Your task to perform on an android device: What is the news today? Image 0: 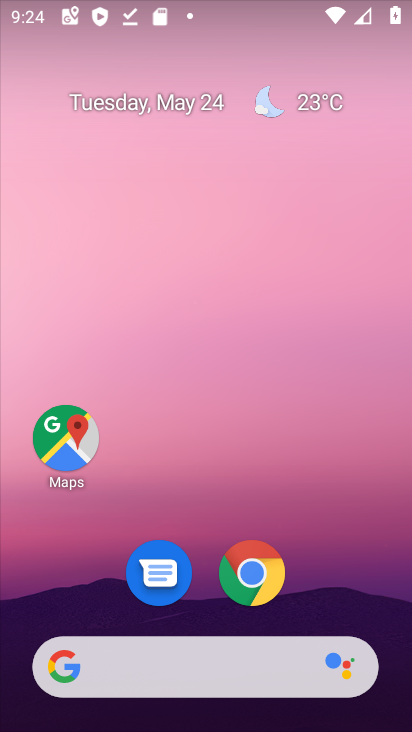
Step 0: click (403, 503)
Your task to perform on an android device: What is the news today? Image 1: 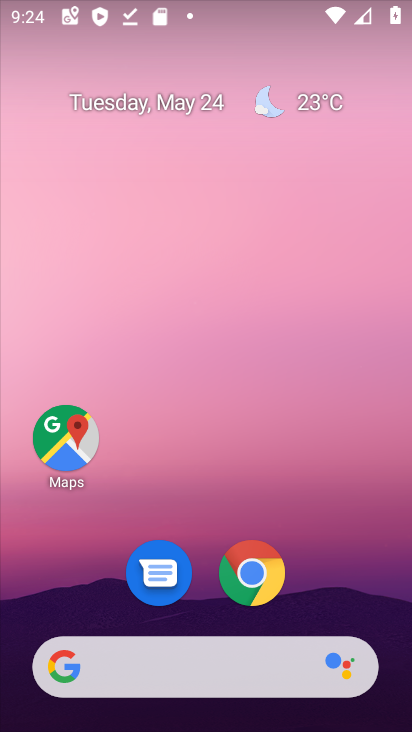
Step 1: task complete